Your task to perform on an android device: turn off airplane mode Image 0: 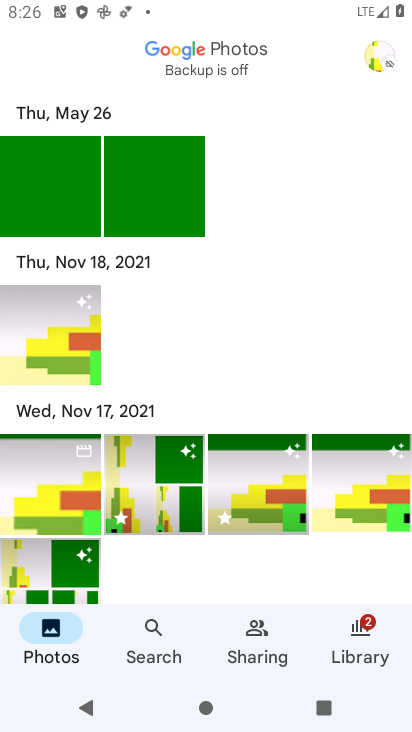
Step 0: press home button
Your task to perform on an android device: turn off airplane mode Image 1: 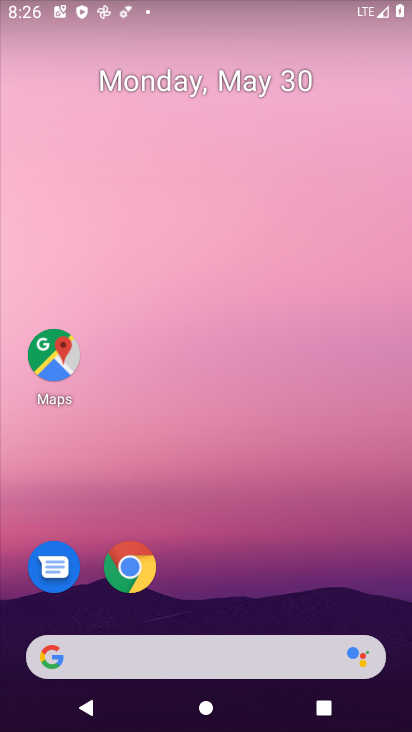
Step 1: drag from (336, 595) to (281, 2)
Your task to perform on an android device: turn off airplane mode Image 2: 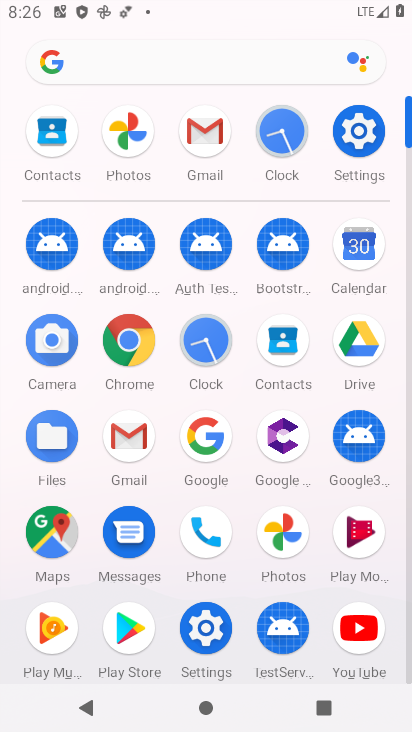
Step 2: click (352, 142)
Your task to perform on an android device: turn off airplane mode Image 3: 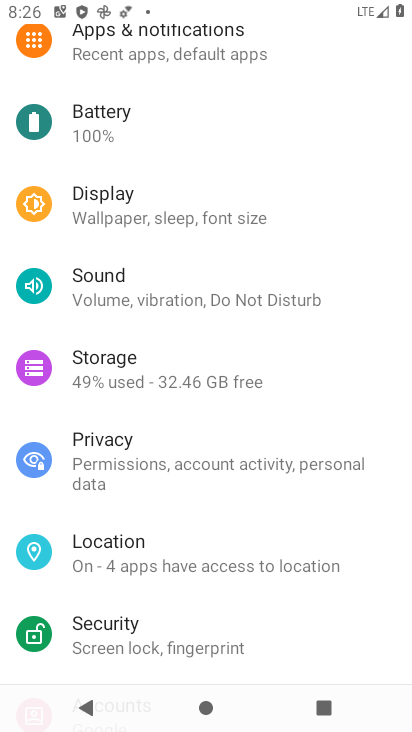
Step 3: drag from (307, 178) to (384, 652)
Your task to perform on an android device: turn off airplane mode Image 4: 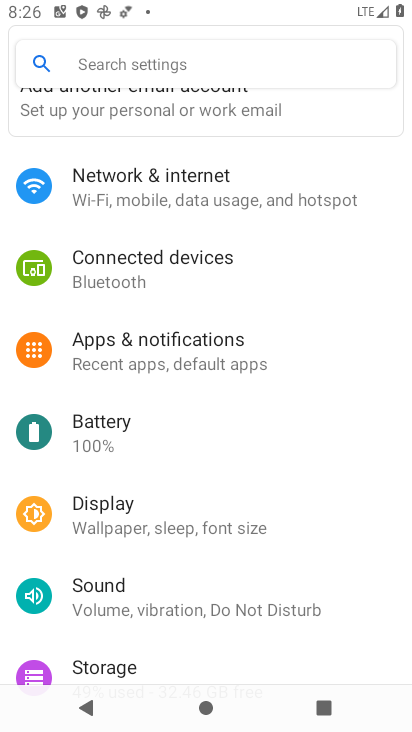
Step 4: click (168, 187)
Your task to perform on an android device: turn off airplane mode Image 5: 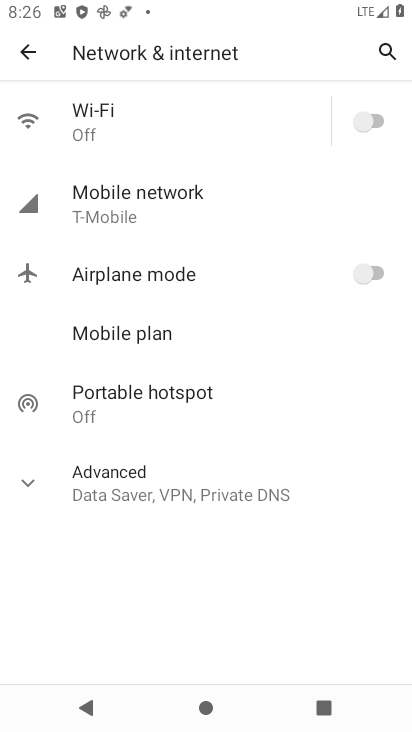
Step 5: click (373, 264)
Your task to perform on an android device: turn off airplane mode Image 6: 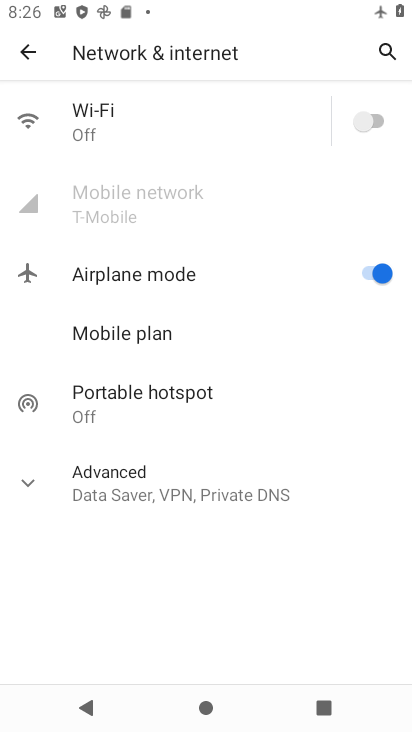
Step 6: task complete